Your task to perform on an android device: delete a single message in the gmail app Image 0: 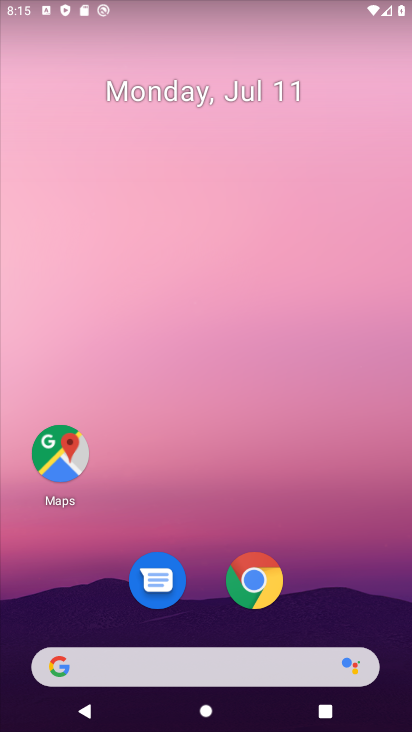
Step 0: drag from (358, 577) to (288, 71)
Your task to perform on an android device: delete a single message in the gmail app Image 1: 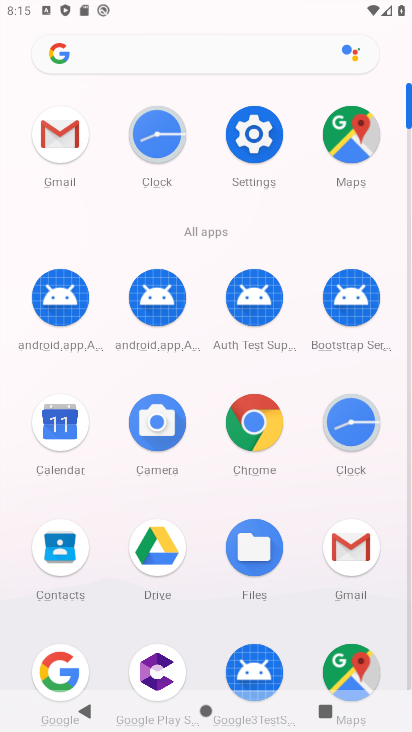
Step 1: click (58, 130)
Your task to perform on an android device: delete a single message in the gmail app Image 2: 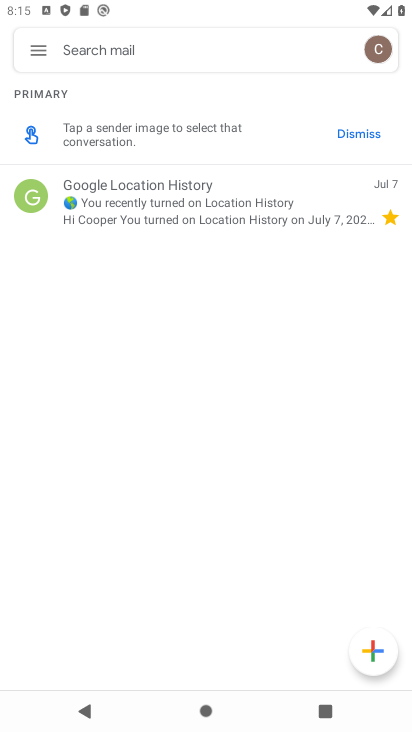
Step 2: click (104, 213)
Your task to perform on an android device: delete a single message in the gmail app Image 3: 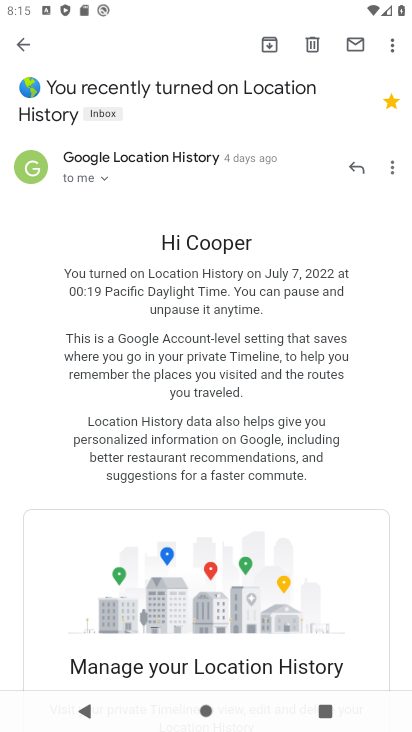
Step 3: click (313, 46)
Your task to perform on an android device: delete a single message in the gmail app Image 4: 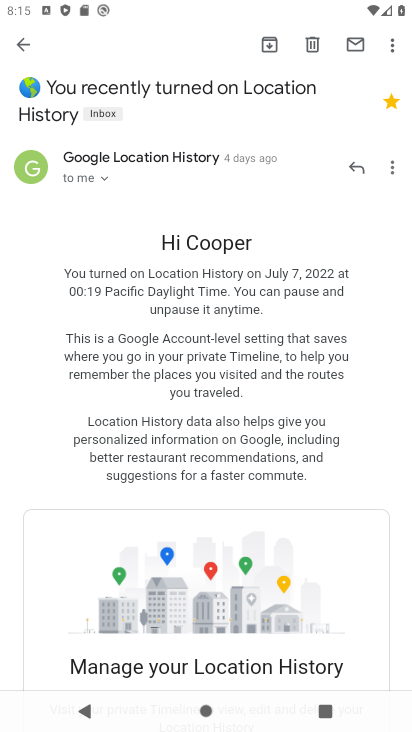
Step 4: click (313, 46)
Your task to perform on an android device: delete a single message in the gmail app Image 5: 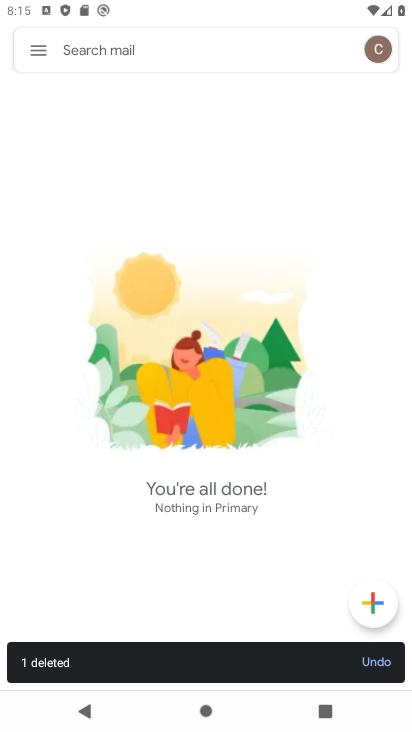
Step 5: task complete